Your task to perform on an android device: toggle javascript in the chrome app Image 0: 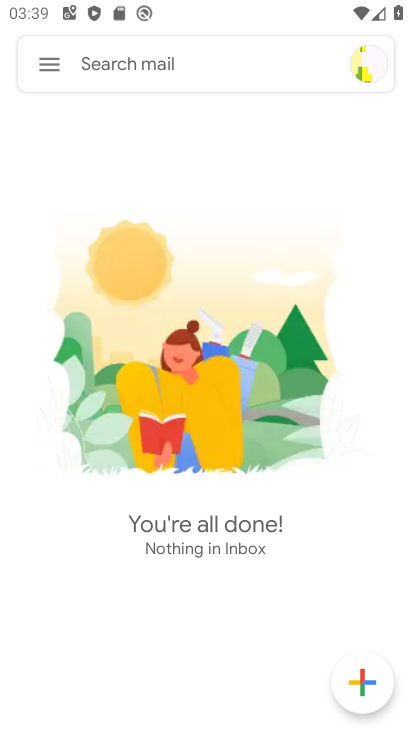
Step 0: press home button
Your task to perform on an android device: toggle javascript in the chrome app Image 1: 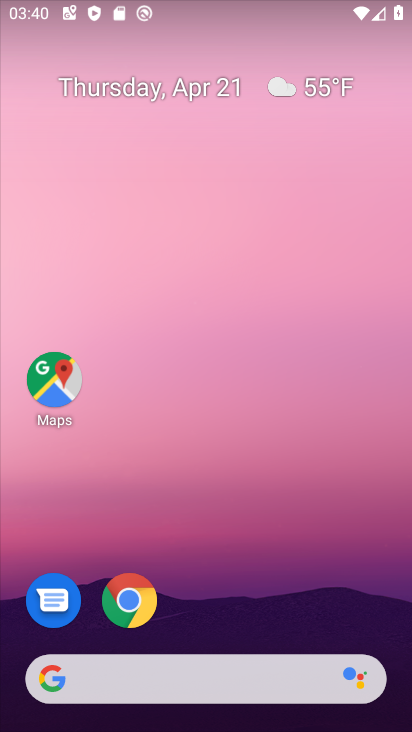
Step 1: click (116, 604)
Your task to perform on an android device: toggle javascript in the chrome app Image 2: 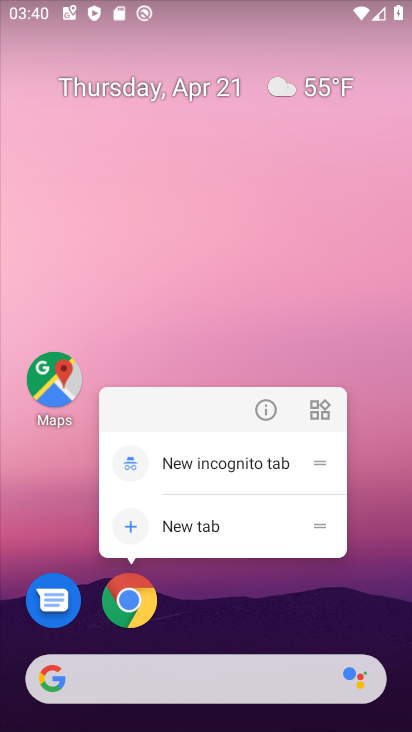
Step 2: click (119, 602)
Your task to perform on an android device: toggle javascript in the chrome app Image 3: 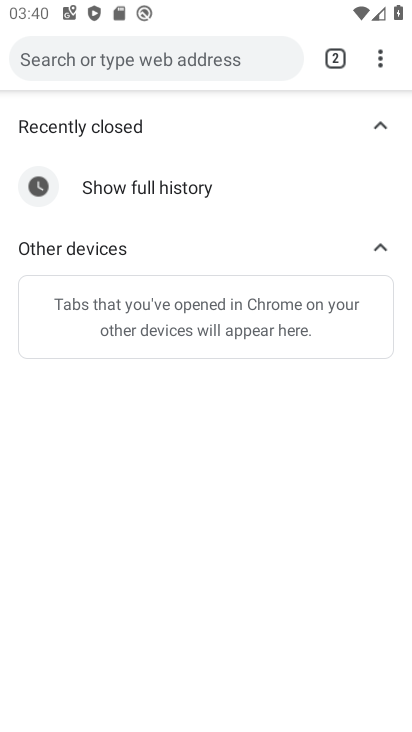
Step 3: click (377, 42)
Your task to perform on an android device: toggle javascript in the chrome app Image 4: 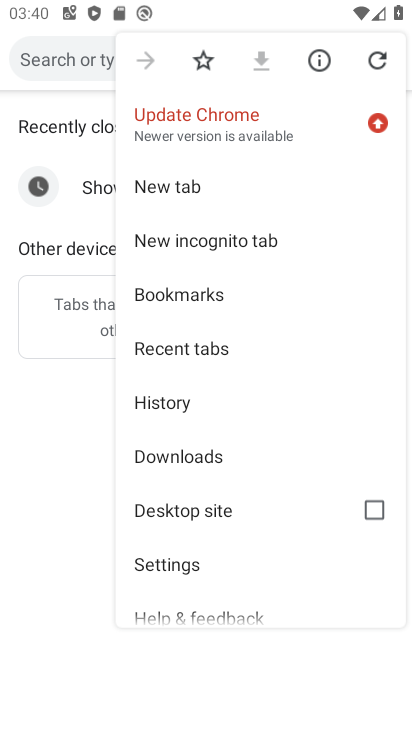
Step 4: click (175, 568)
Your task to perform on an android device: toggle javascript in the chrome app Image 5: 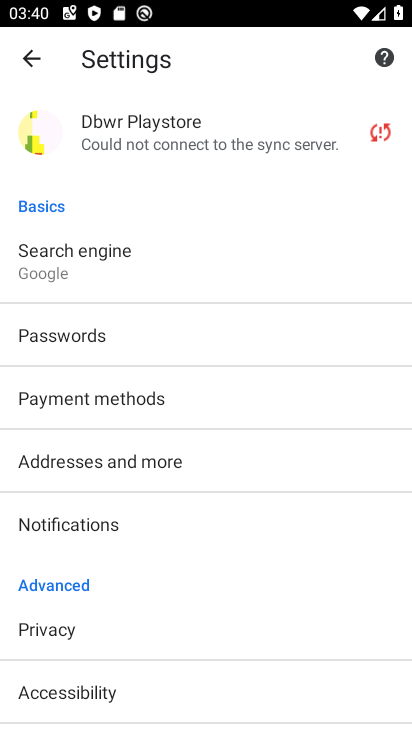
Step 5: drag from (147, 461) to (202, 218)
Your task to perform on an android device: toggle javascript in the chrome app Image 6: 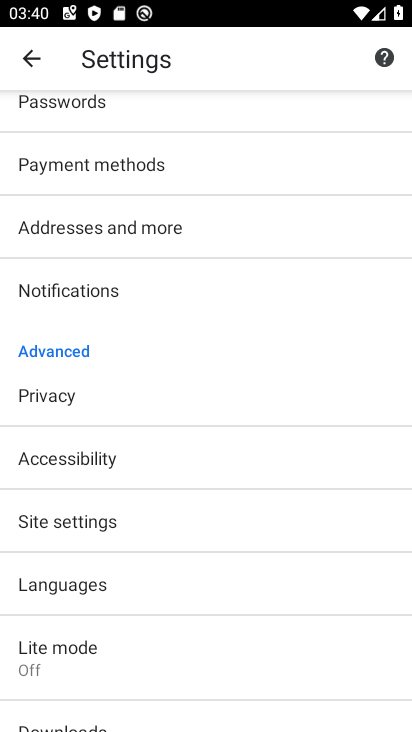
Step 6: click (131, 526)
Your task to perform on an android device: toggle javascript in the chrome app Image 7: 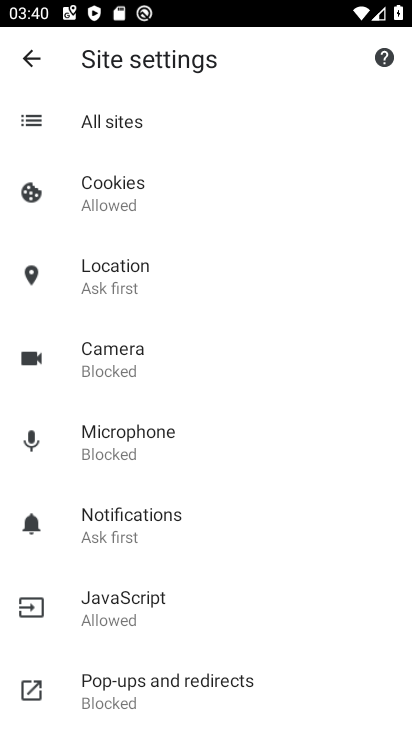
Step 7: click (172, 627)
Your task to perform on an android device: toggle javascript in the chrome app Image 8: 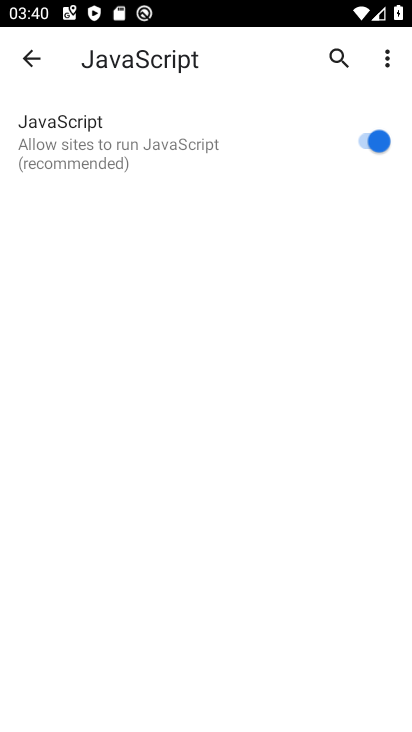
Step 8: click (360, 141)
Your task to perform on an android device: toggle javascript in the chrome app Image 9: 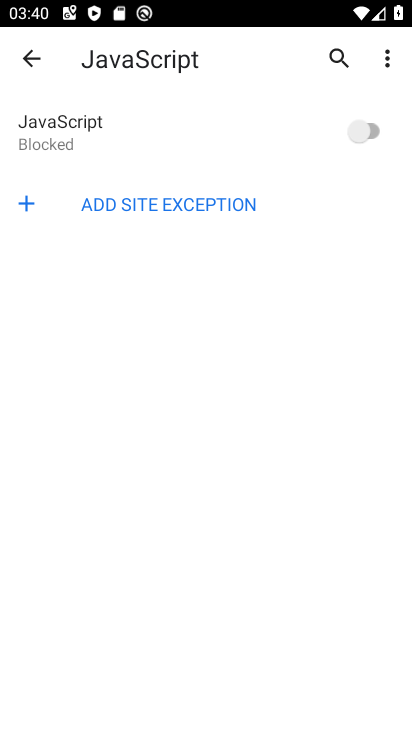
Step 9: task complete